Your task to perform on an android device: set an alarm Image 0: 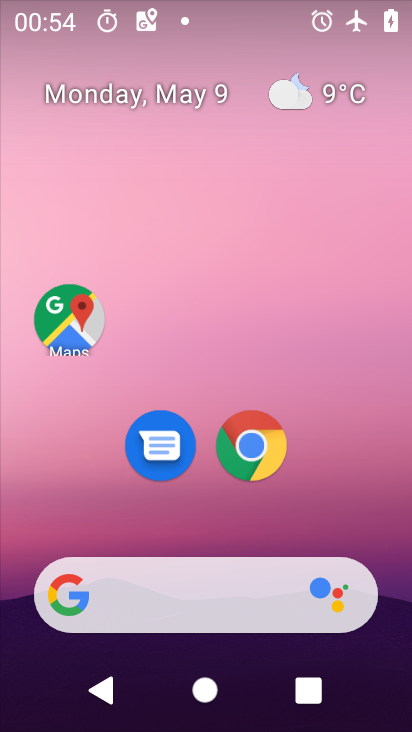
Step 0: drag from (398, 491) to (350, 12)
Your task to perform on an android device: set an alarm Image 1: 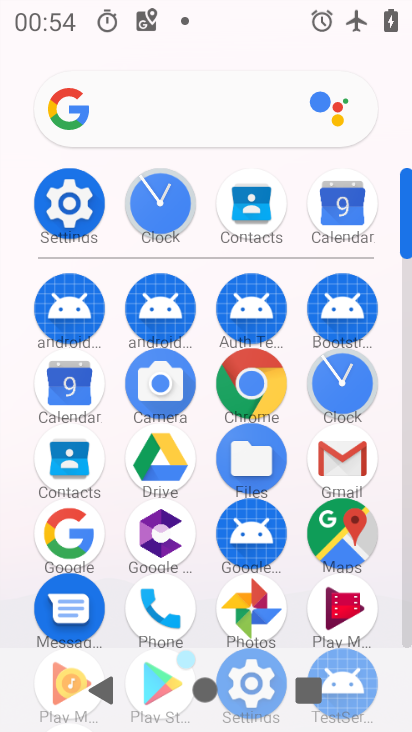
Step 1: click (156, 210)
Your task to perform on an android device: set an alarm Image 2: 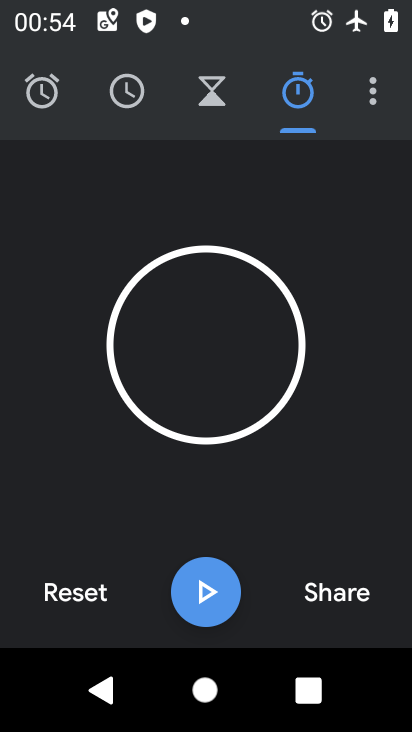
Step 2: click (48, 94)
Your task to perform on an android device: set an alarm Image 3: 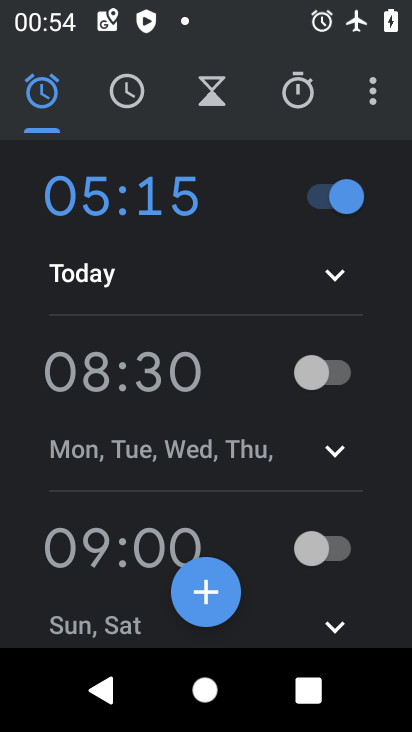
Step 3: click (209, 589)
Your task to perform on an android device: set an alarm Image 4: 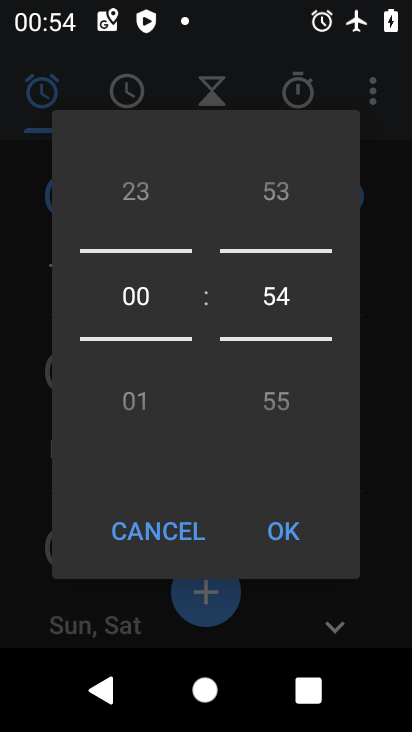
Step 4: drag from (130, 350) to (133, 131)
Your task to perform on an android device: set an alarm Image 5: 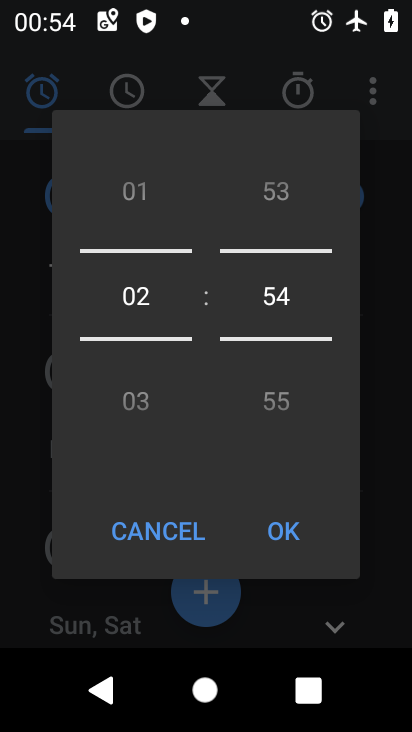
Step 5: drag from (150, 367) to (156, 168)
Your task to perform on an android device: set an alarm Image 6: 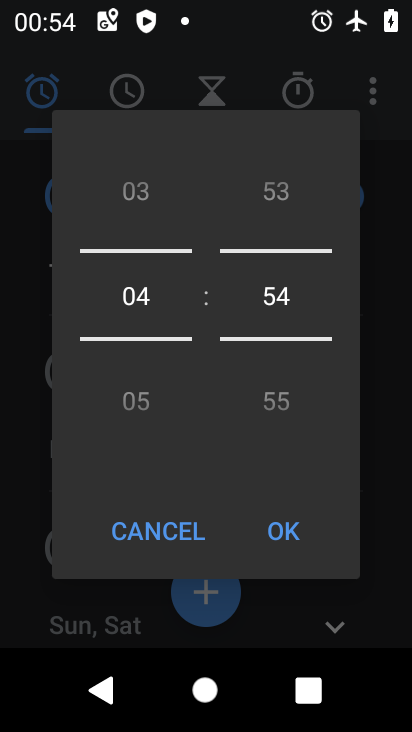
Step 6: drag from (283, 303) to (287, 205)
Your task to perform on an android device: set an alarm Image 7: 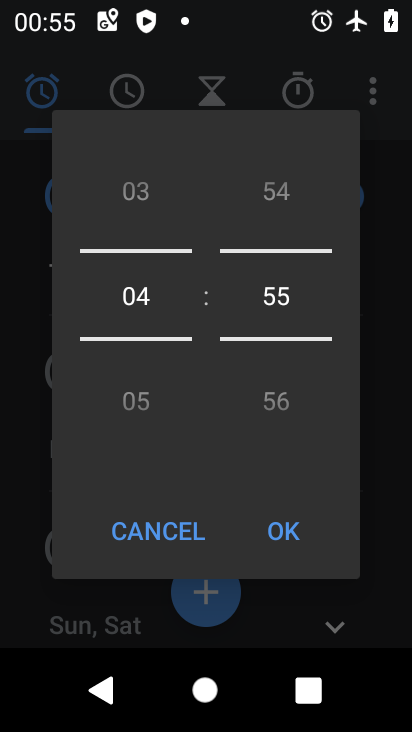
Step 7: click (280, 530)
Your task to perform on an android device: set an alarm Image 8: 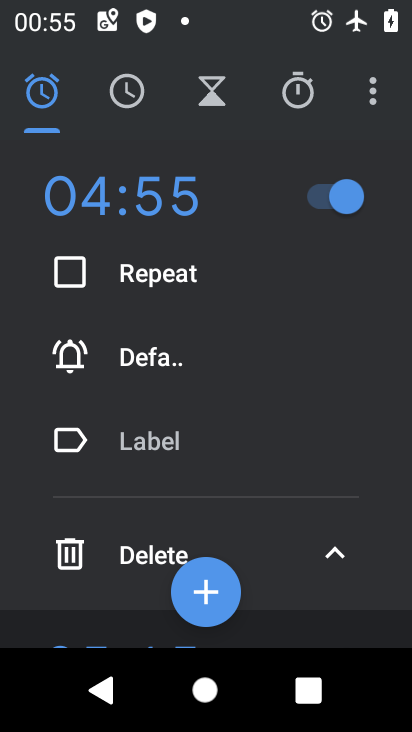
Step 8: task complete